Your task to perform on an android device: What's the weather? Image 0: 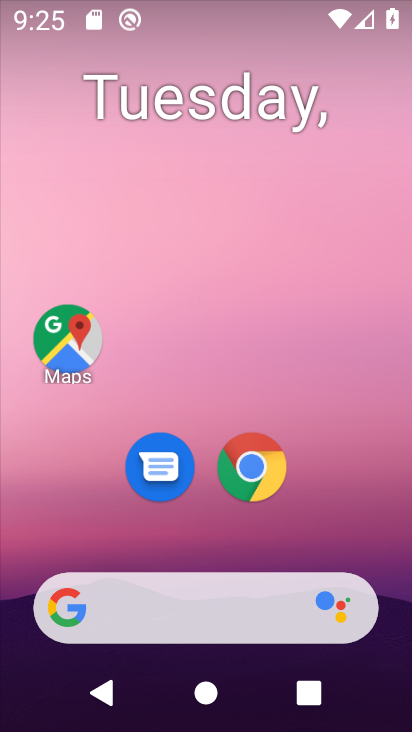
Step 0: drag from (313, 499) to (313, 161)
Your task to perform on an android device: What's the weather? Image 1: 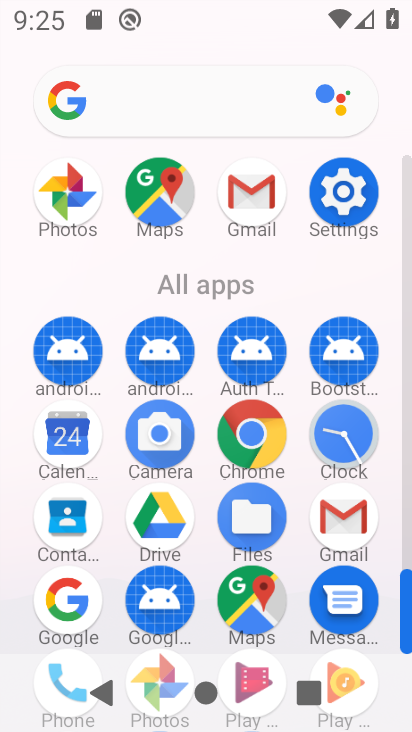
Step 1: click (354, 191)
Your task to perform on an android device: What's the weather? Image 2: 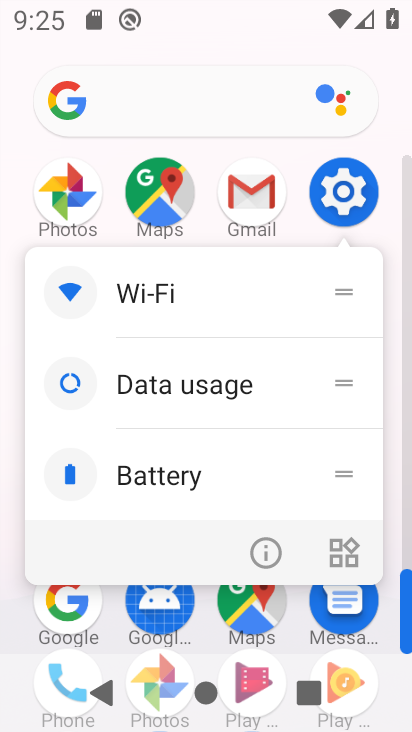
Step 2: drag from (108, 636) to (219, 230)
Your task to perform on an android device: What's the weather? Image 3: 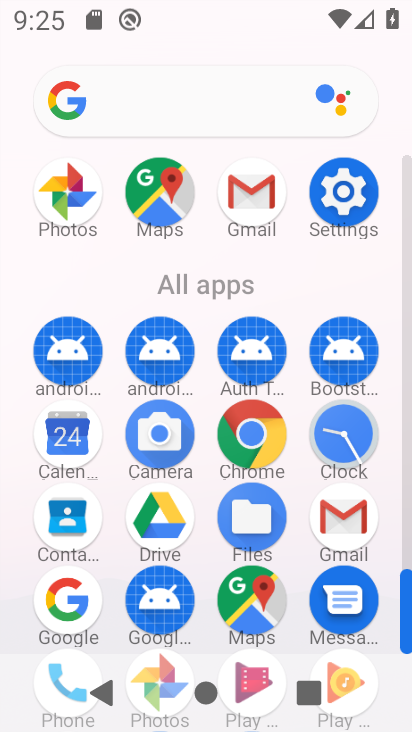
Step 3: click (251, 444)
Your task to perform on an android device: What's the weather? Image 4: 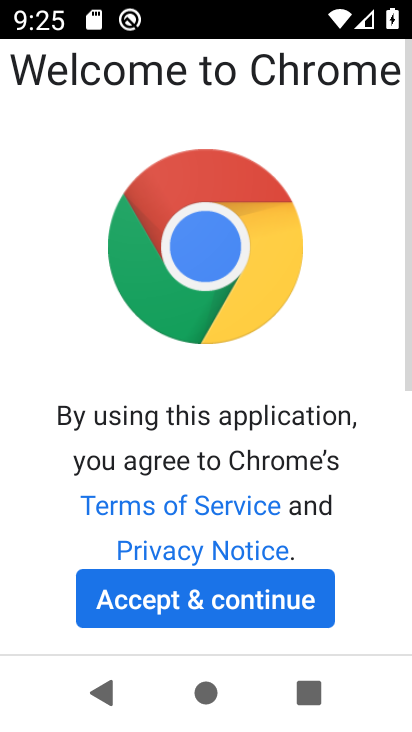
Step 4: click (267, 601)
Your task to perform on an android device: What's the weather? Image 5: 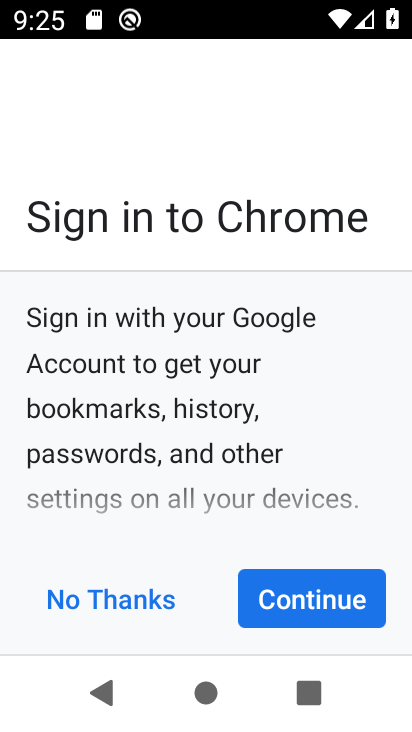
Step 5: click (290, 602)
Your task to perform on an android device: What's the weather? Image 6: 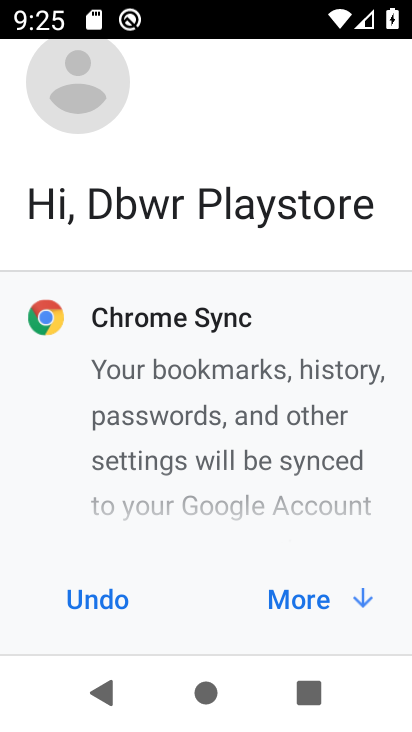
Step 6: click (298, 604)
Your task to perform on an android device: What's the weather? Image 7: 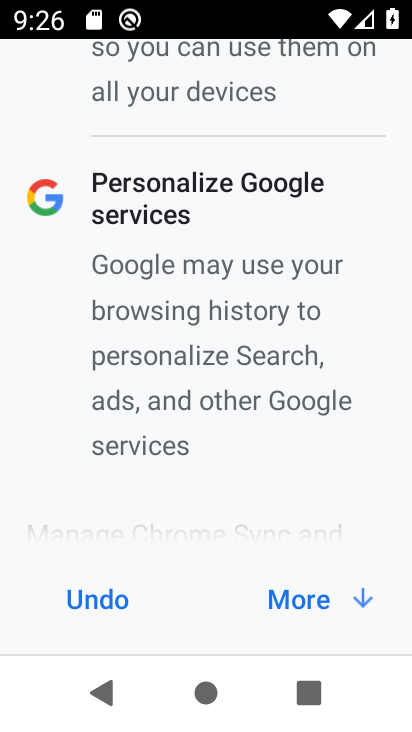
Step 7: click (313, 607)
Your task to perform on an android device: What's the weather? Image 8: 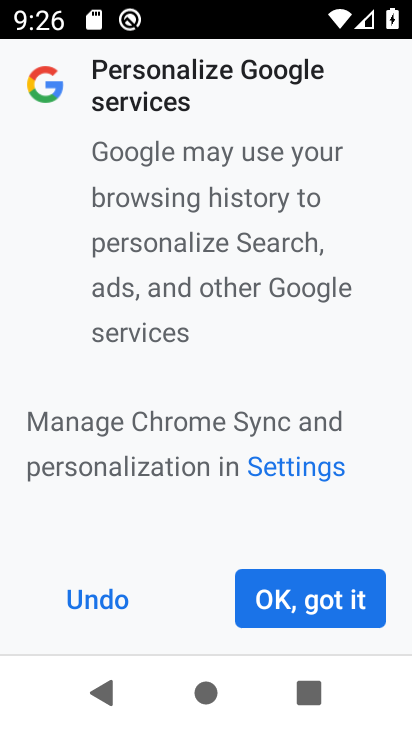
Step 8: click (313, 607)
Your task to perform on an android device: What's the weather? Image 9: 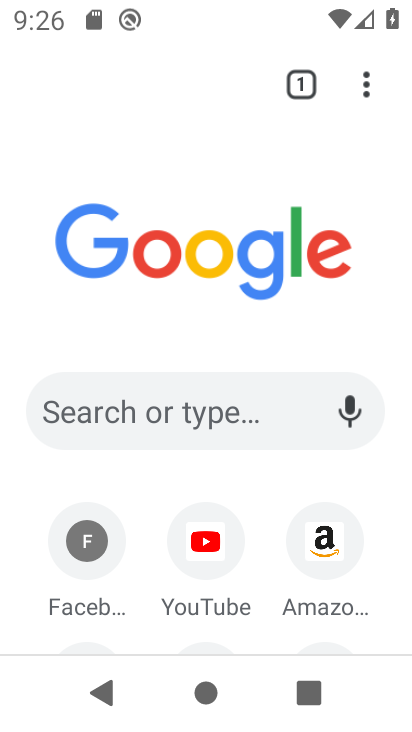
Step 9: click (184, 410)
Your task to perform on an android device: What's the weather? Image 10: 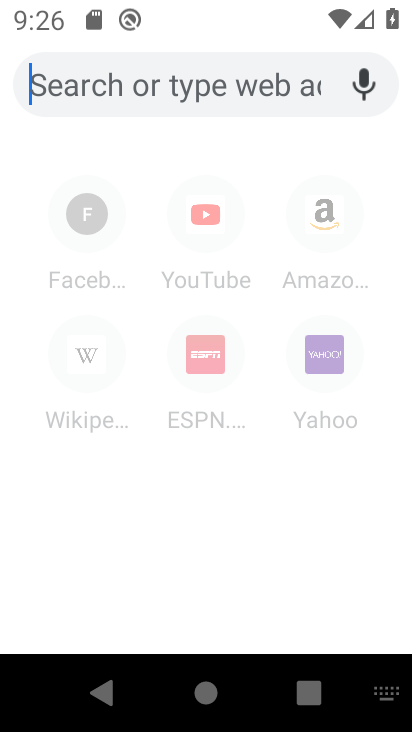
Step 10: type "what's the weather"
Your task to perform on an android device: What's the weather? Image 11: 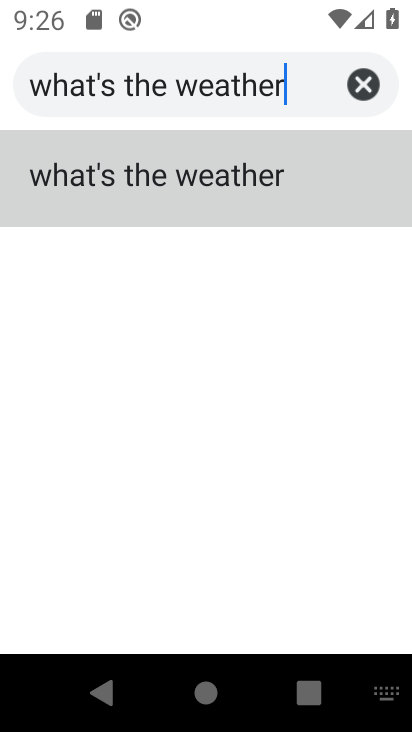
Step 11: click (184, 192)
Your task to perform on an android device: What's the weather? Image 12: 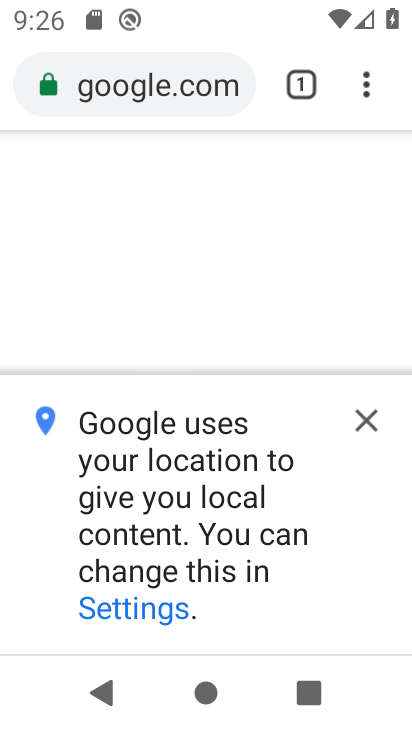
Step 12: task complete